Your task to perform on an android device: Open Reddit.com Image 0: 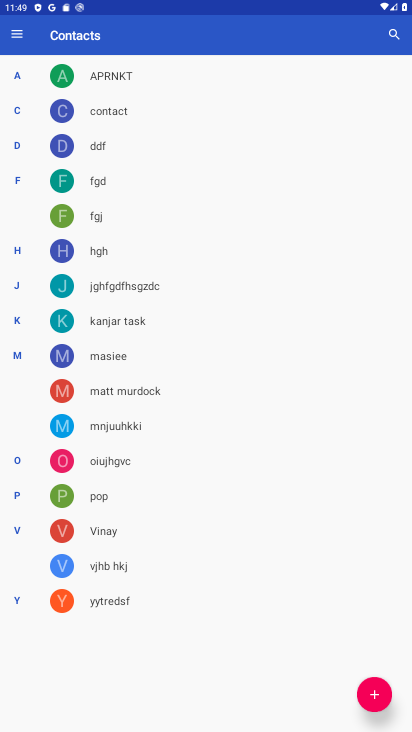
Step 0: press home button
Your task to perform on an android device: Open Reddit.com Image 1: 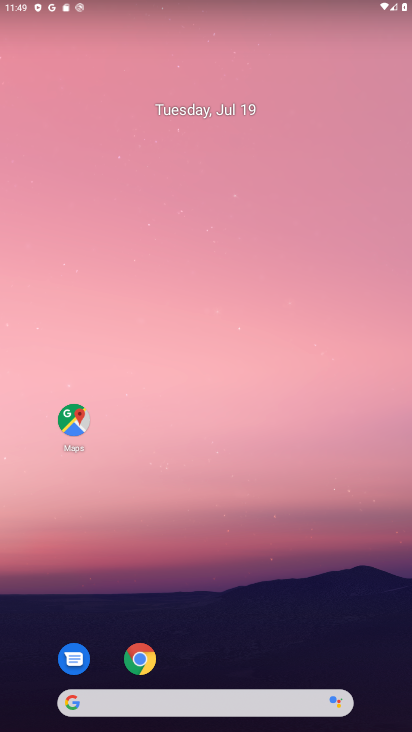
Step 1: drag from (320, 637) to (246, 198)
Your task to perform on an android device: Open Reddit.com Image 2: 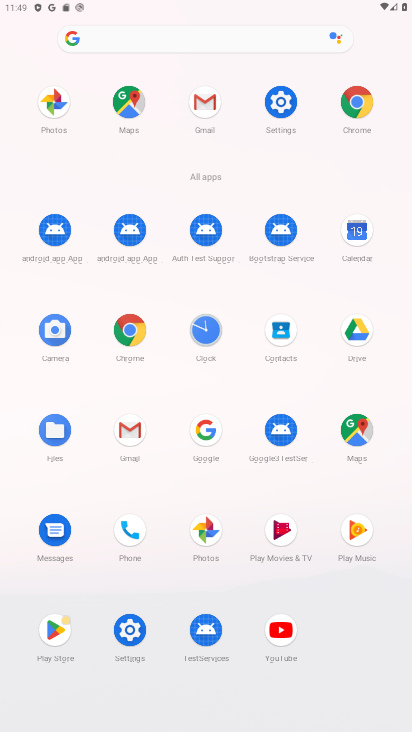
Step 2: click (354, 98)
Your task to perform on an android device: Open Reddit.com Image 3: 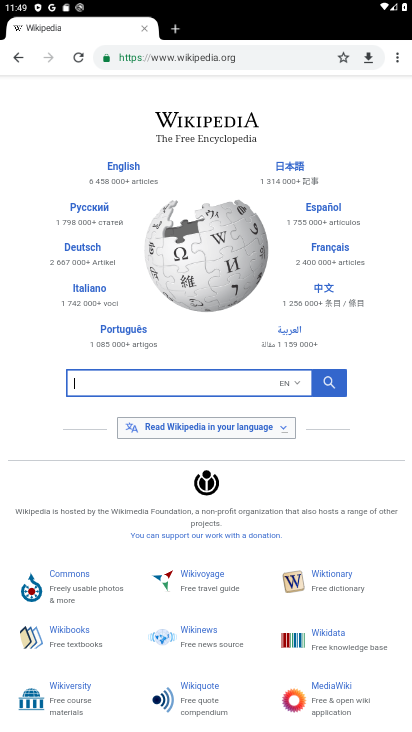
Step 3: click (308, 55)
Your task to perform on an android device: Open Reddit.com Image 4: 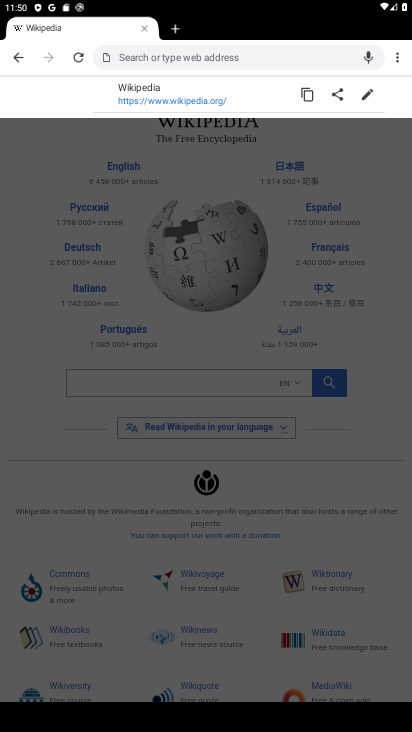
Step 4: type "reddit.com"
Your task to perform on an android device: Open Reddit.com Image 5: 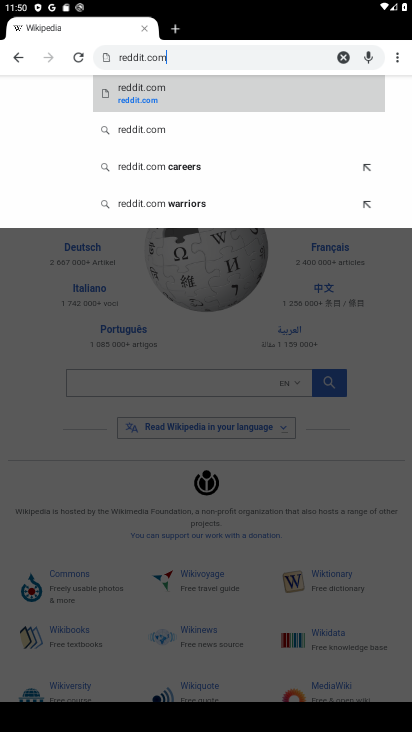
Step 5: type ""
Your task to perform on an android device: Open Reddit.com Image 6: 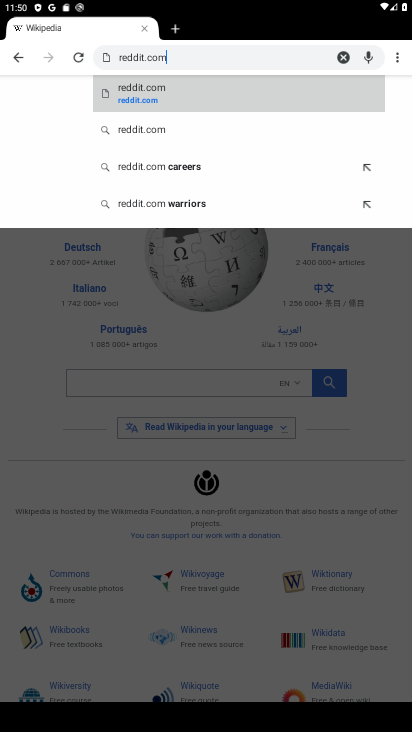
Step 6: click (144, 87)
Your task to perform on an android device: Open Reddit.com Image 7: 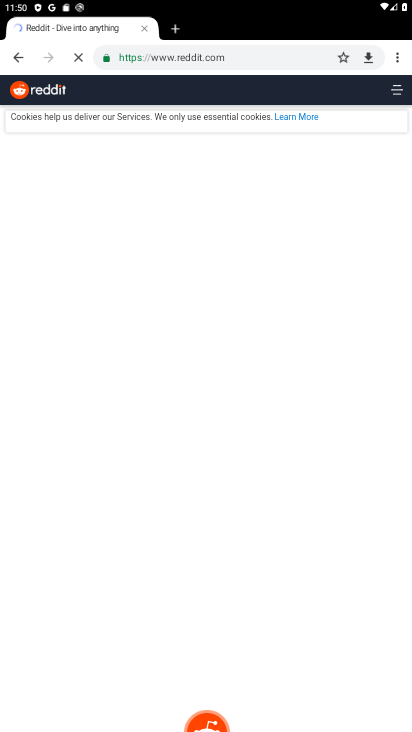
Step 7: task complete